Your task to perform on an android device: Do I have any events today? Image 0: 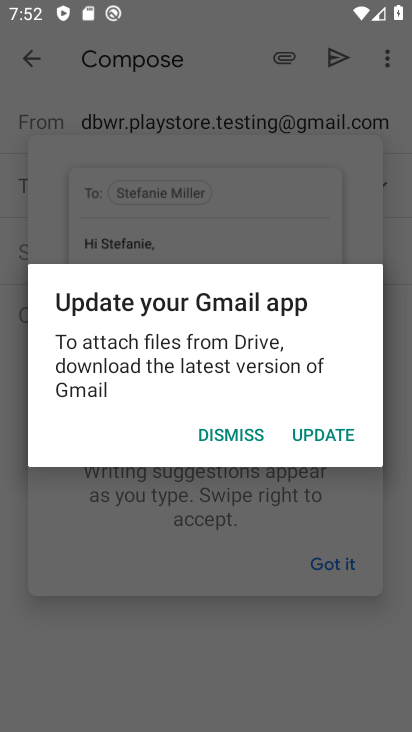
Step 0: press home button
Your task to perform on an android device: Do I have any events today? Image 1: 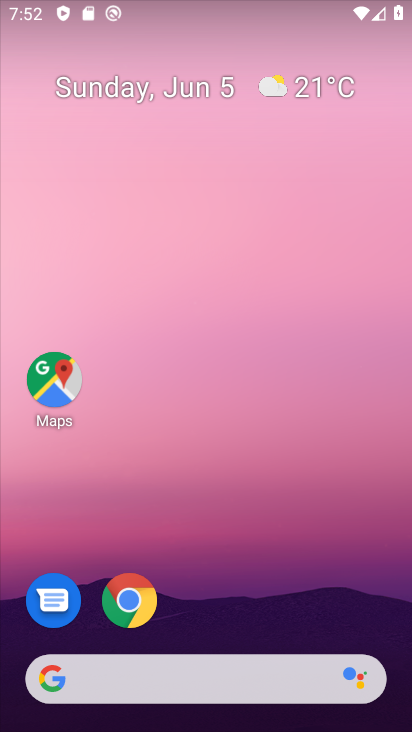
Step 1: drag from (253, 563) to (260, 16)
Your task to perform on an android device: Do I have any events today? Image 2: 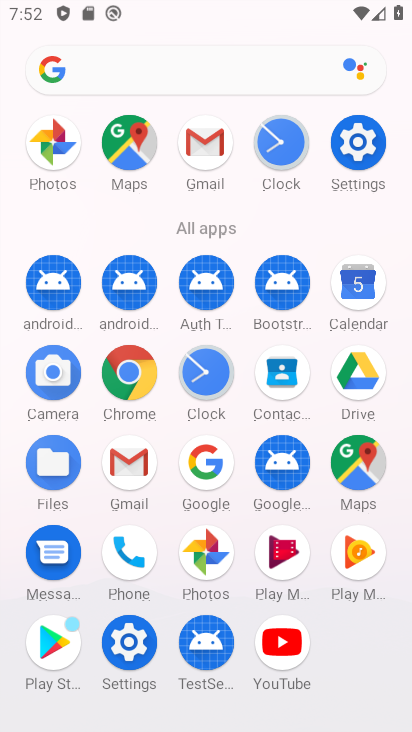
Step 2: click (354, 290)
Your task to perform on an android device: Do I have any events today? Image 3: 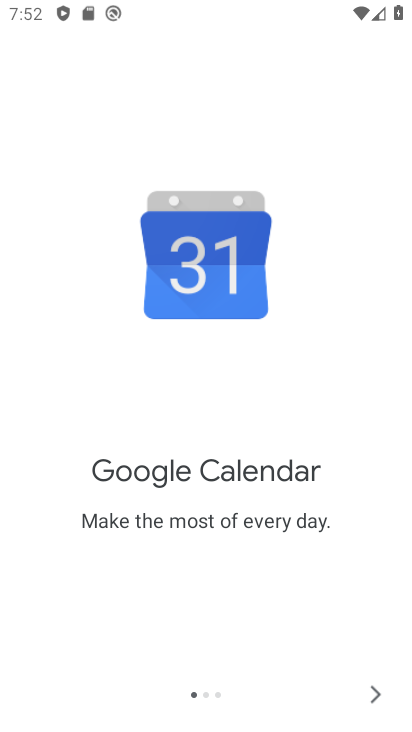
Step 3: click (374, 693)
Your task to perform on an android device: Do I have any events today? Image 4: 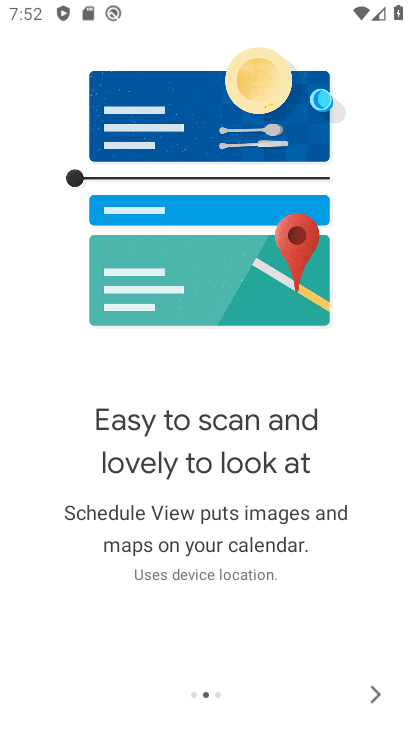
Step 4: click (374, 693)
Your task to perform on an android device: Do I have any events today? Image 5: 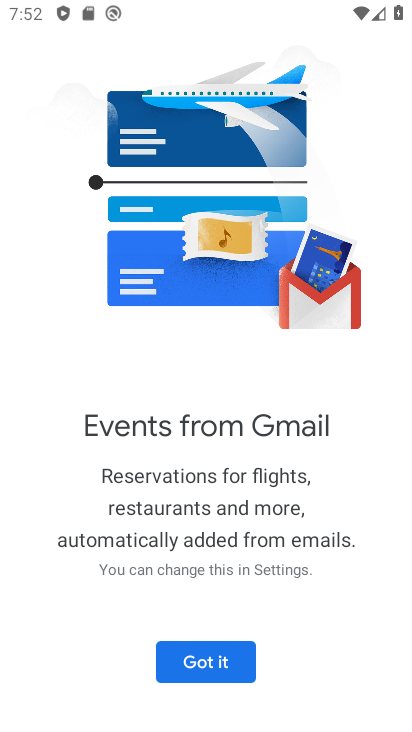
Step 5: click (200, 655)
Your task to perform on an android device: Do I have any events today? Image 6: 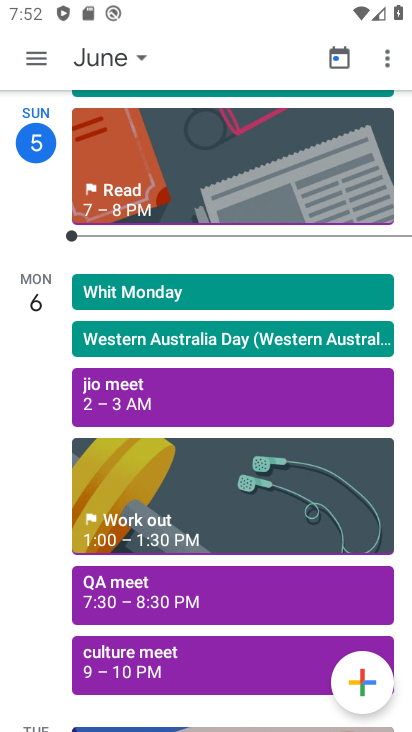
Step 6: click (92, 49)
Your task to perform on an android device: Do I have any events today? Image 7: 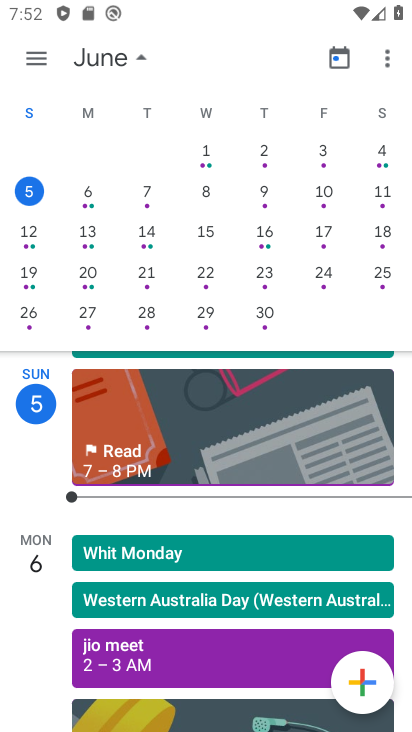
Step 7: click (37, 198)
Your task to perform on an android device: Do I have any events today? Image 8: 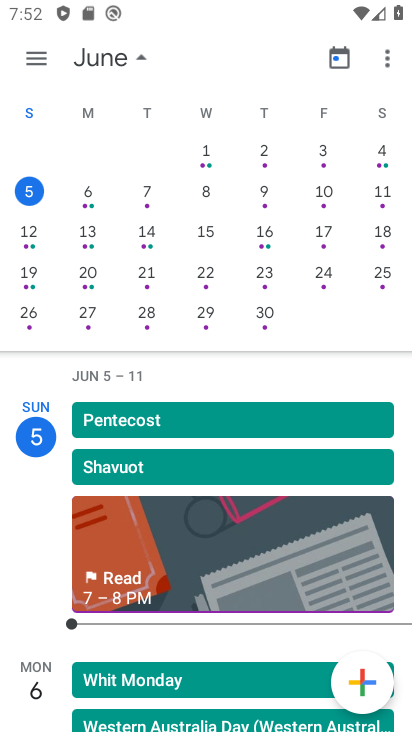
Step 8: task complete